Your task to perform on an android device: open app "Expedia: Hotels, Flights & Car" (install if not already installed), go to login, and select forgot password Image 0: 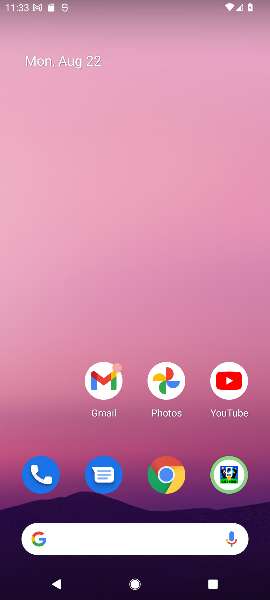
Step 0: drag from (125, 482) to (54, 21)
Your task to perform on an android device: open app "Expedia: Hotels, Flights & Car" (install if not already installed), go to login, and select forgot password Image 1: 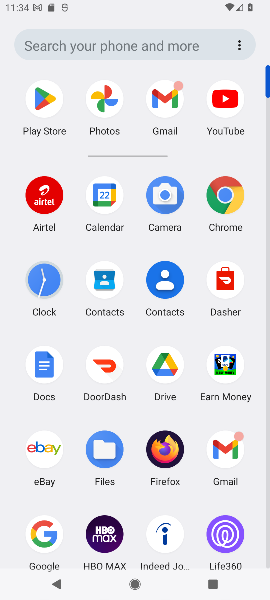
Step 1: click (41, 100)
Your task to perform on an android device: open app "Expedia: Hotels, Flights & Car" (install if not already installed), go to login, and select forgot password Image 2: 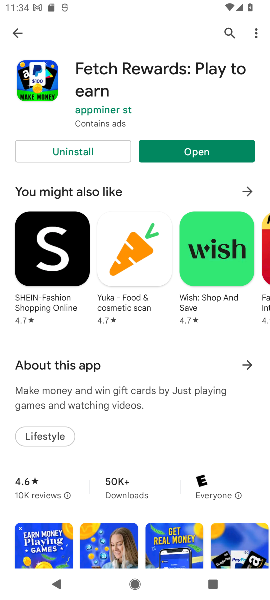
Step 2: click (19, 38)
Your task to perform on an android device: open app "Expedia: Hotels, Flights & Car" (install if not already installed), go to login, and select forgot password Image 3: 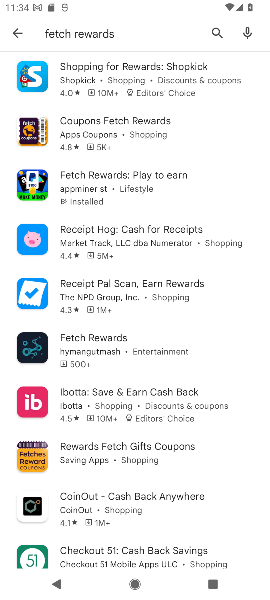
Step 3: click (19, 33)
Your task to perform on an android device: open app "Expedia: Hotels, Flights & Car" (install if not already installed), go to login, and select forgot password Image 4: 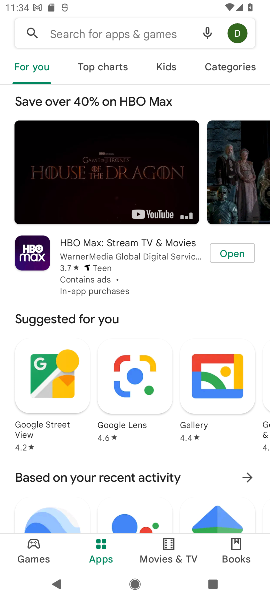
Step 4: click (67, 33)
Your task to perform on an android device: open app "Expedia: Hotels, Flights & Car" (install if not already installed), go to login, and select forgot password Image 5: 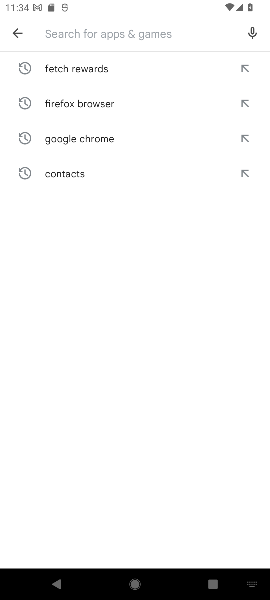
Step 5: type "Expedia: Hotels, Flights & Car"
Your task to perform on an android device: open app "Expedia: Hotels, Flights & Car" (install if not already installed), go to login, and select forgot password Image 6: 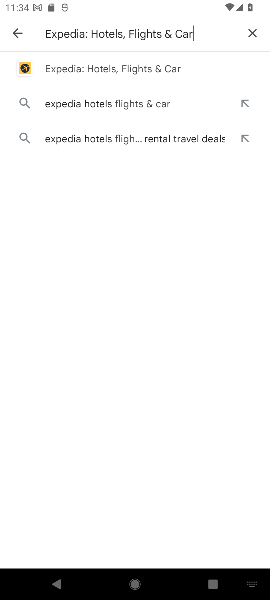
Step 6: click (88, 62)
Your task to perform on an android device: open app "Expedia: Hotels, Flights & Car" (install if not already installed), go to login, and select forgot password Image 7: 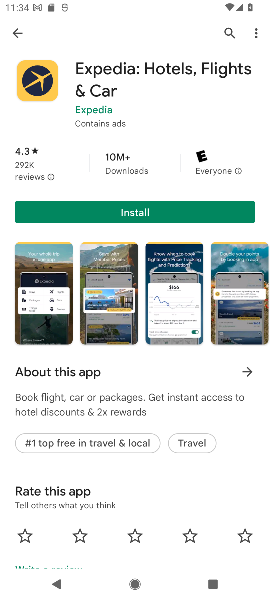
Step 7: click (147, 218)
Your task to perform on an android device: open app "Expedia: Hotels, Flights & Car" (install if not already installed), go to login, and select forgot password Image 8: 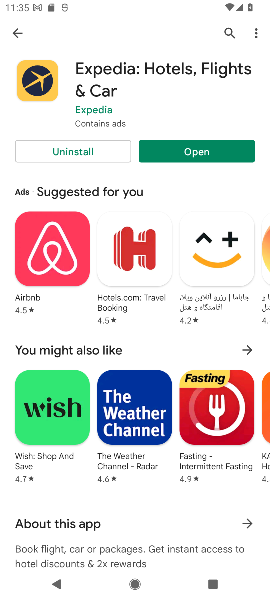
Step 8: click (180, 159)
Your task to perform on an android device: open app "Expedia: Hotels, Flights & Car" (install if not already installed), go to login, and select forgot password Image 9: 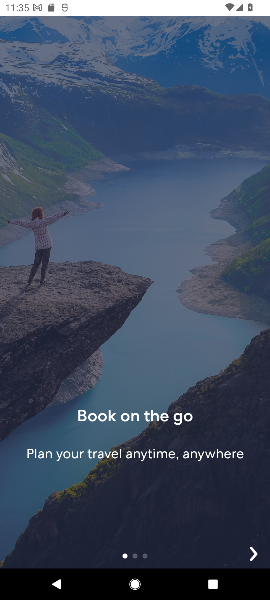
Step 9: click (245, 560)
Your task to perform on an android device: open app "Expedia: Hotels, Flights & Car" (install if not already installed), go to login, and select forgot password Image 10: 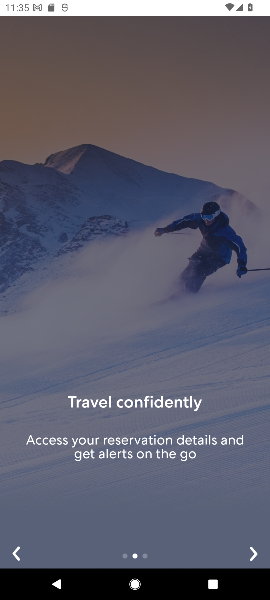
Step 10: click (245, 560)
Your task to perform on an android device: open app "Expedia: Hotels, Flights & Car" (install if not already installed), go to login, and select forgot password Image 11: 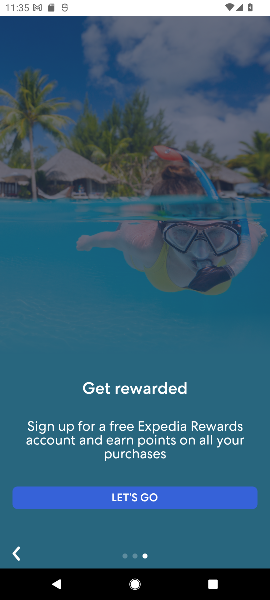
Step 11: click (116, 496)
Your task to perform on an android device: open app "Expedia: Hotels, Flights & Car" (install if not already installed), go to login, and select forgot password Image 12: 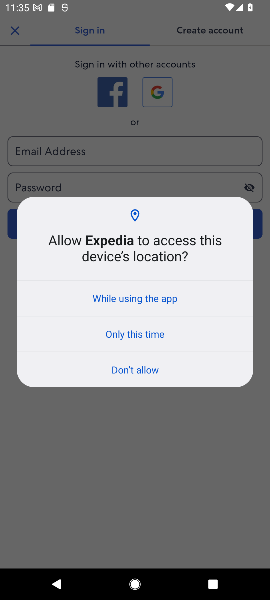
Step 12: click (149, 298)
Your task to perform on an android device: open app "Expedia: Hotels, Flights & Car" (install if not already installed), go to login, and select forgot password Image 13: 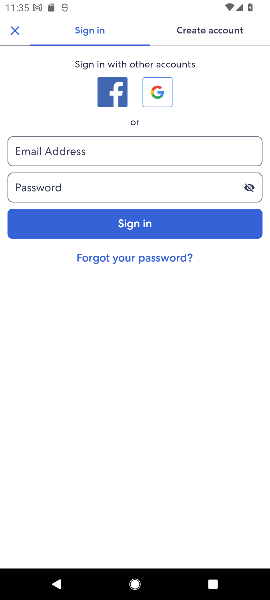
Step 13: click (147, 252)
Your task to perform on an android device: open app "Expedia: Hotels, Flights & Car" (install if not already installed), go to login, and select forgot password Image 14: 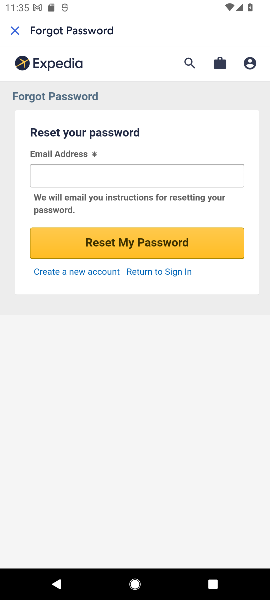
Step 14: task complete